Your task to perform on an android device: Open privacy settings Image 0: 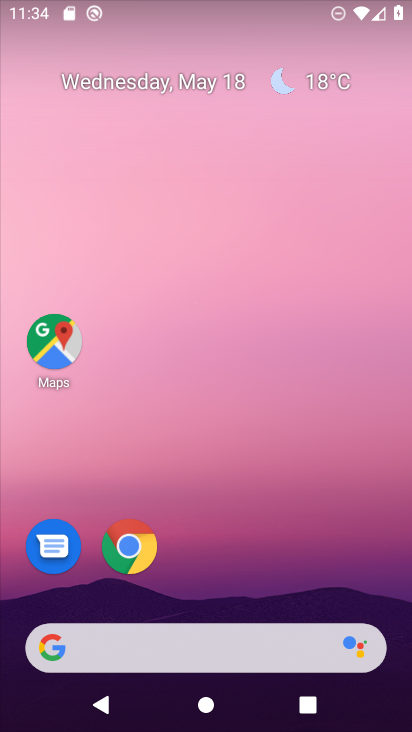
Step 0: drag from (220, 726) to (224, 199)
Your task to perform on an android device: Open privacy settings Image 1: 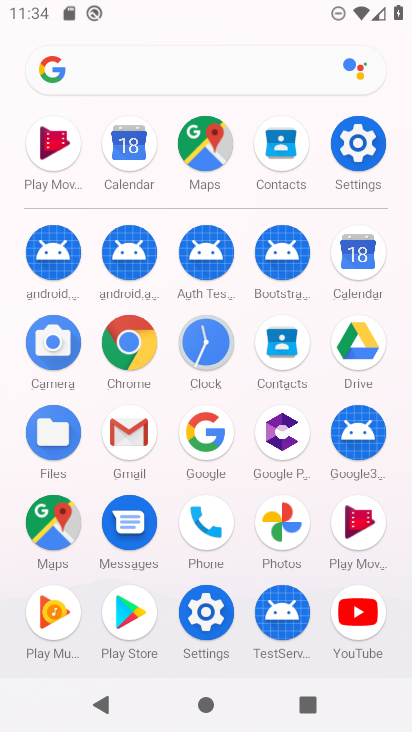
Step 1: click (357, 140)
Your task to perform on an android device: Open privacy settings Image 2: 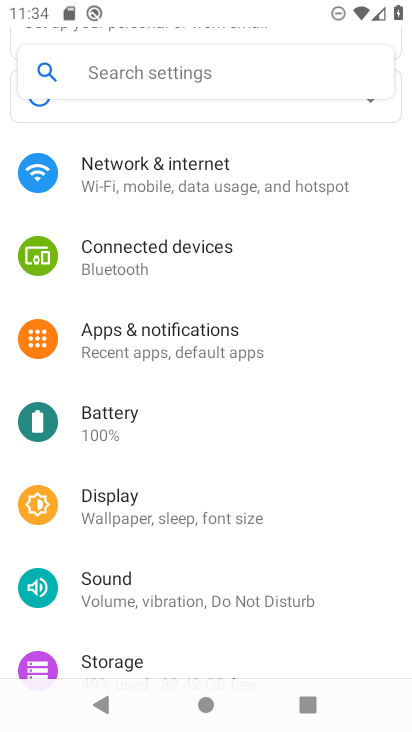
Step 2: drag from (173, 643) to (193, 290)
Your task to perform on an android device: Open privacy settings Image 3: 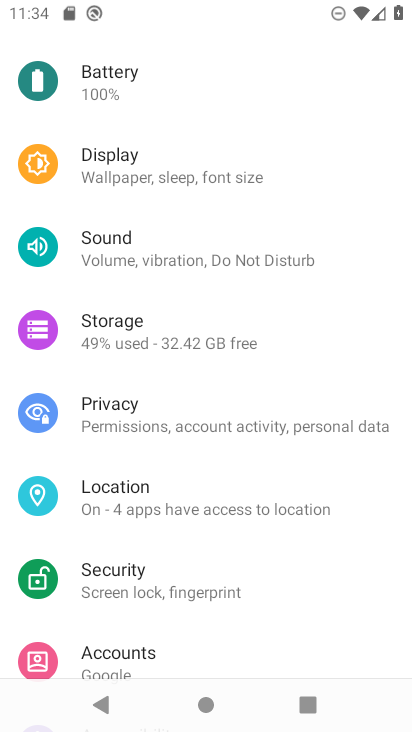
Step 3: drag from (156, 598) to (164, 325)
Your task to perform on an android device: Open privacy settings Image 4: 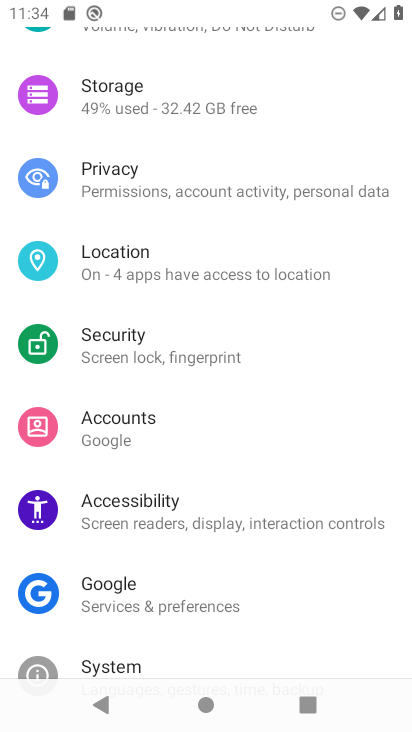
Step 4: drag from (201, 219) to (202, 504)
Your task to perform on an android device: Open privacy settings Image 5: 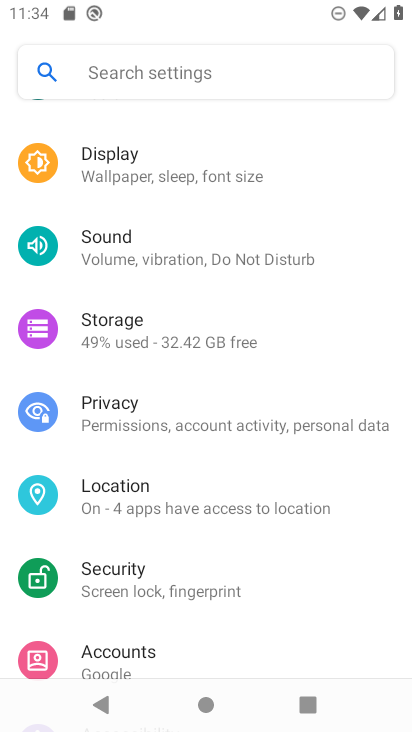
Step 5: click (110, 404)
Your task to perform on an android device: Open privacy settings Image 6: 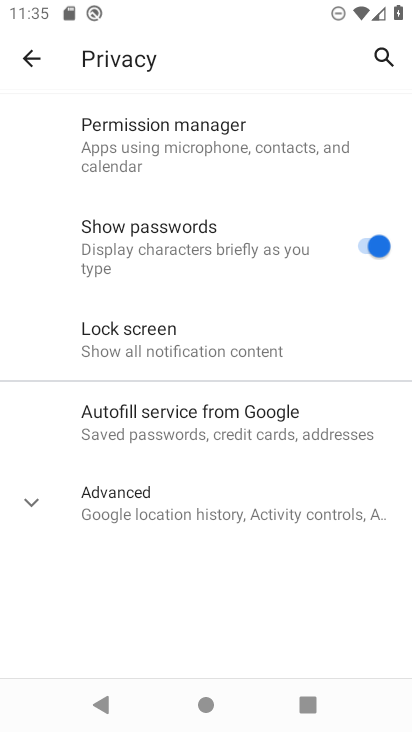
Step 6: task complete